Your task to perform on an android device: Open settings Image 0: 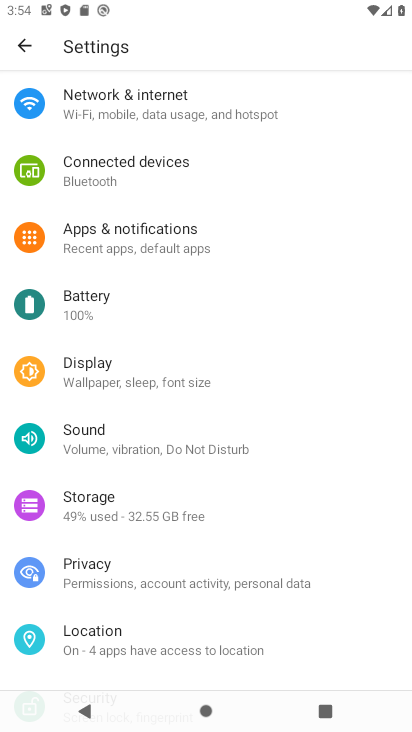
Step 0: task complete